Your task to perform on an android device: show emergency info Image 0: 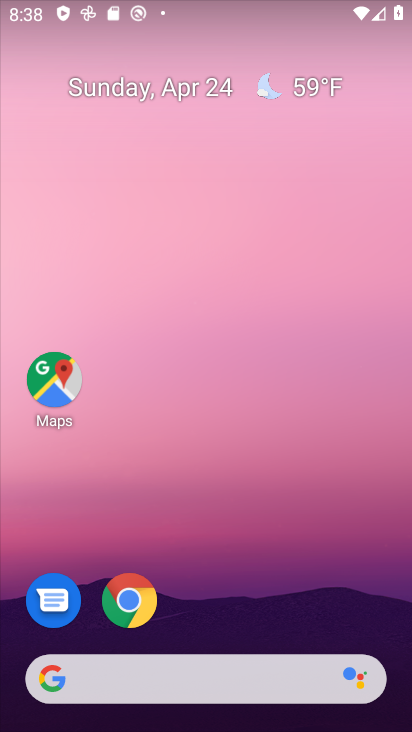
Step 0: drag from (216, 725) to (228, 154)
Your task to perform on an android device: show emergency info Image 1: 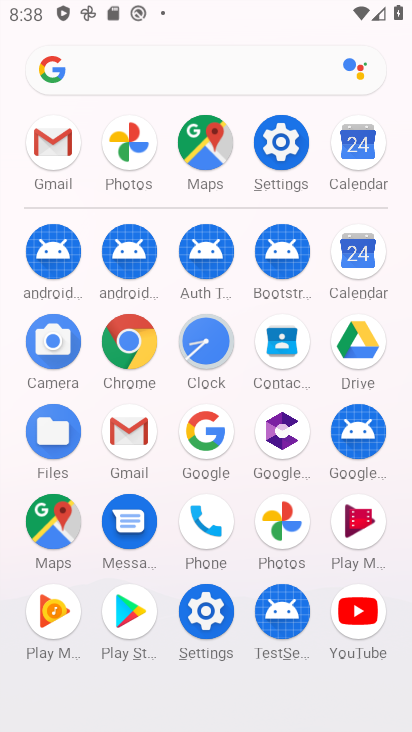
Step 1: click (206, 603)
Your task to perform on an android device: show emergency info Image 2: 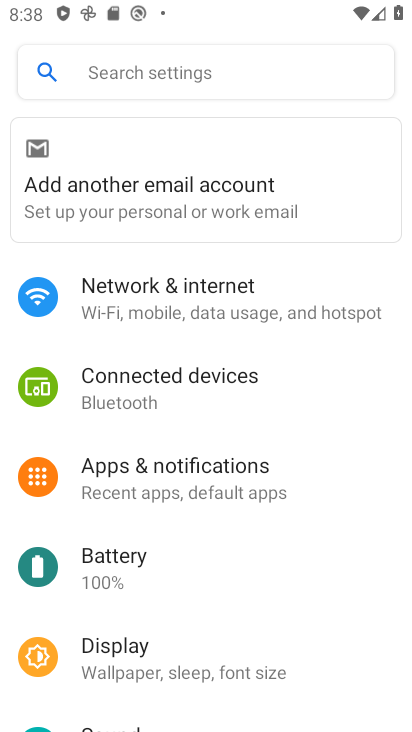
Step 2: drag from (191, 686) to (197, 209)
Your task to perform on an android device: show emergency info Image 3: 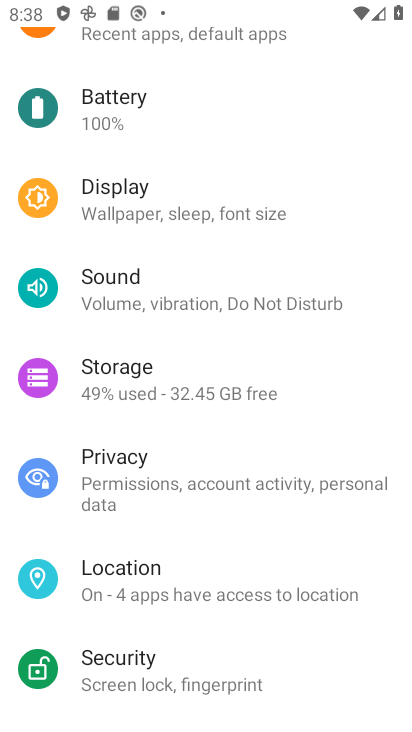
Step 3: drag from (204, 668) to (205, 179)
Your task to perform on an android device: show emergency info Image 4: 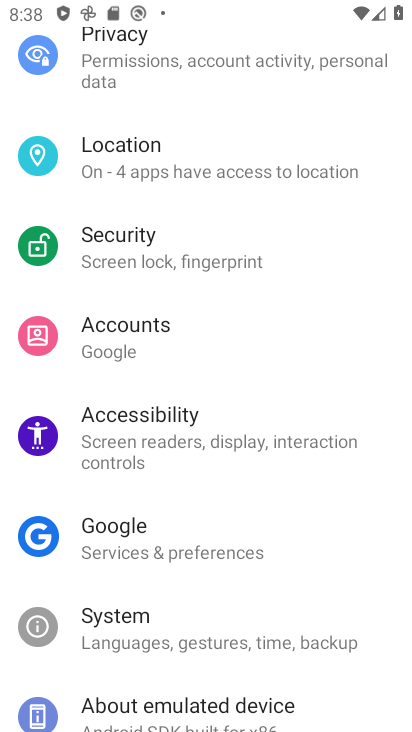
Step 4: drag from (179, 682) to (190, 259)
Your task to perform on an android device: show emergency info Image 5: 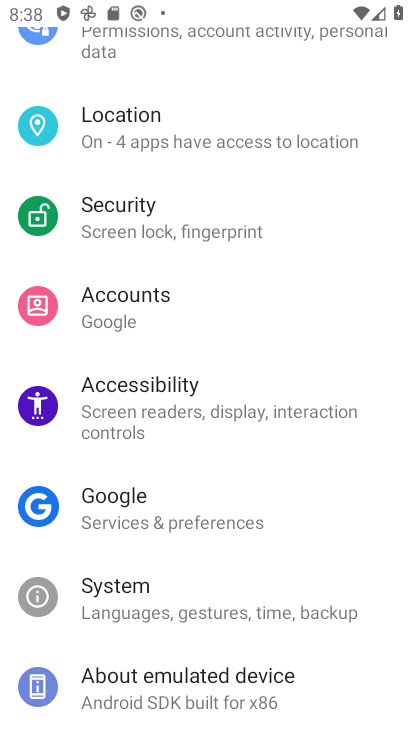
Step 5: click (177, 692)
Your task to perform on an android device: show emergency info Image 6: 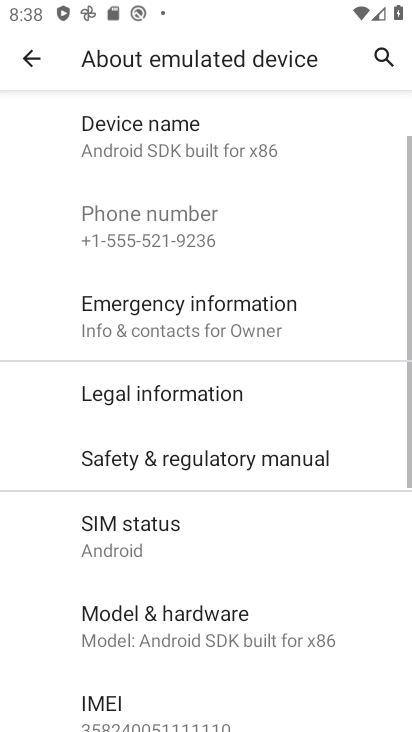
Step 6: click (135, 313)
Your task to perform on an android device: show emergency info Image 7: 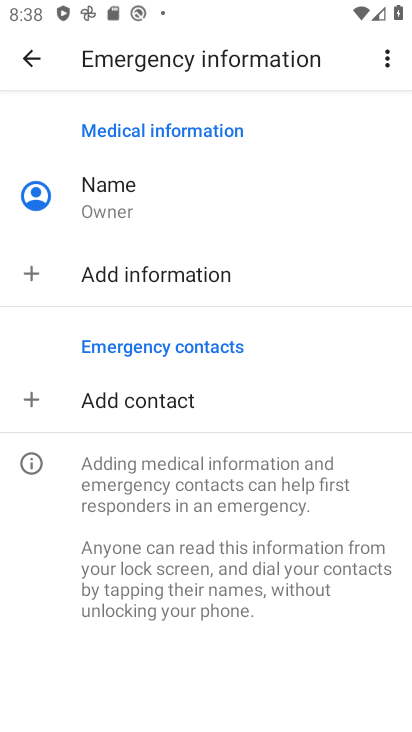
Step 7: task complete